Your task to perform on an android device: Search for Italian restaurants on Maps Image 0: 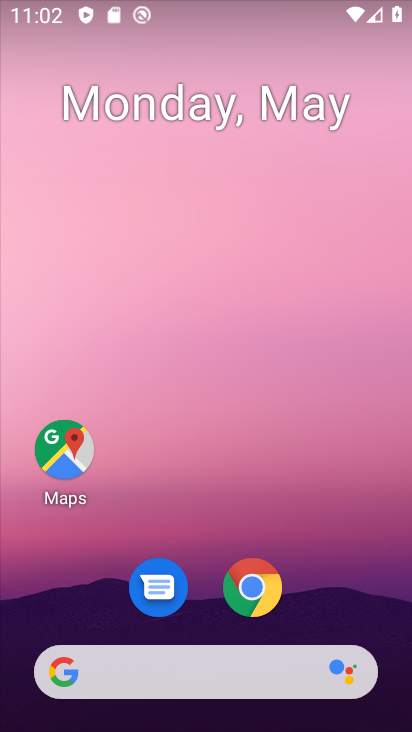
Step 0: drag from (290, 719) to (235, 171)
Your task to perform on an android device: Search for Italian restaurants on Maps Image 1: 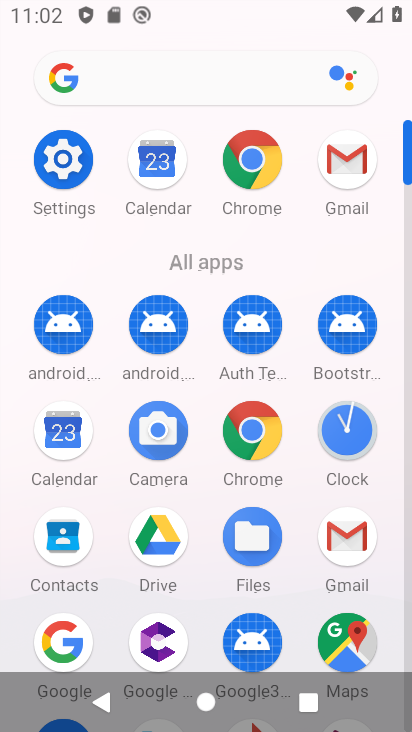
Step 1: click (359, 644)
Your task to perform on an android device: Search for Italian restaurants on Maps Image 2: 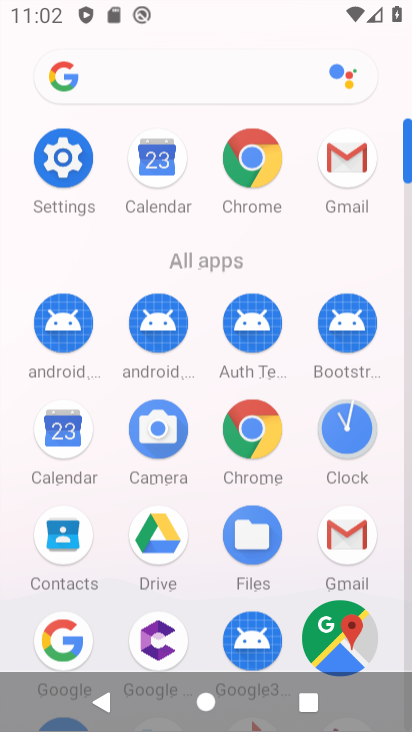
Step 2: click (359, 644)
Your task to perform on an android device: Search for Italian restaurants on Maps Image 3: 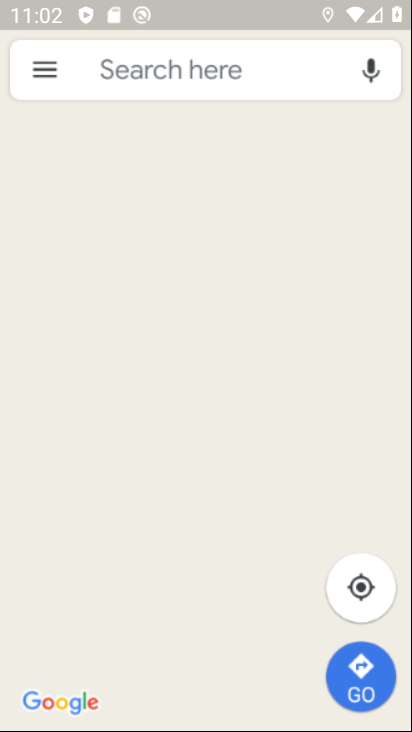
Step 3: click (91, 65)
Your task to perform on an android device: Search for Italian restaurants on Maps Image 4: 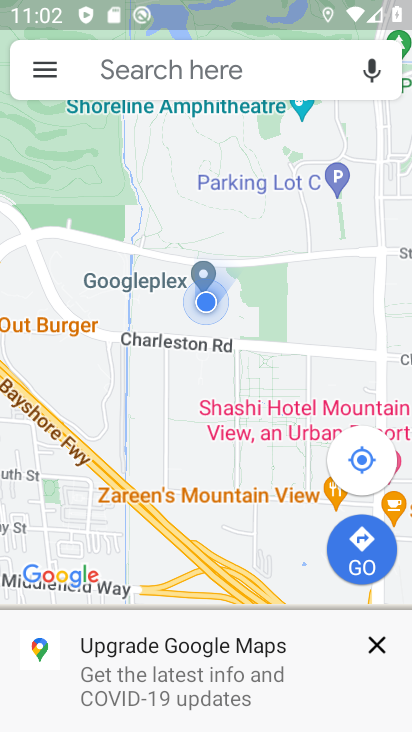
Step 4: click (115, 69)
Your task to perform on an android device: Search for Italian restaurants on Maps Image 5: 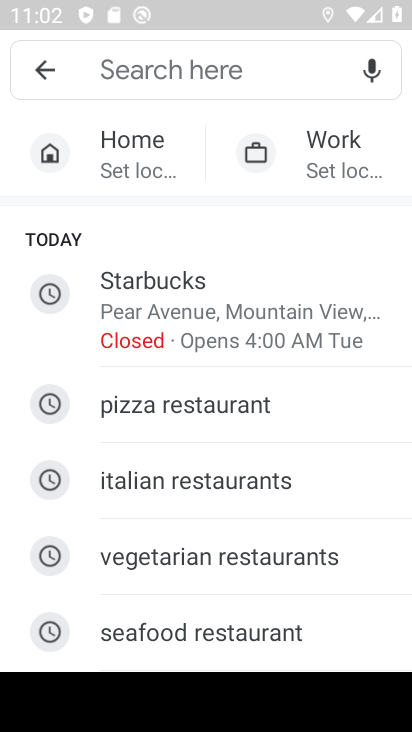
Step 5: click (169, 480)
Your task to perform on an android device: Search for Italian restaurants on Maps Image 6: 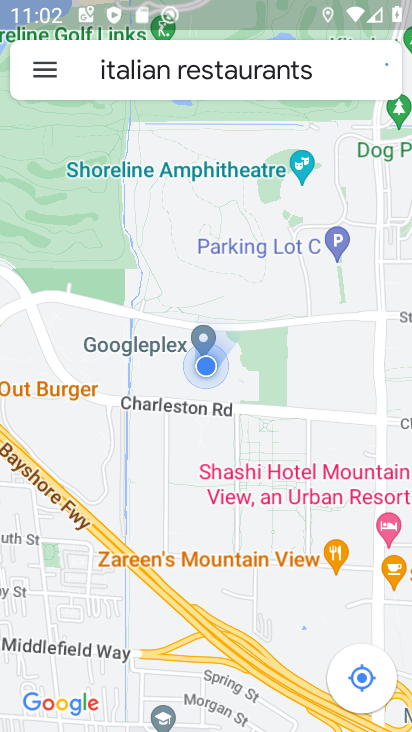
Step 6: task complete